Your task to perform on an android device: turn off translation in the chrome app Image 0: 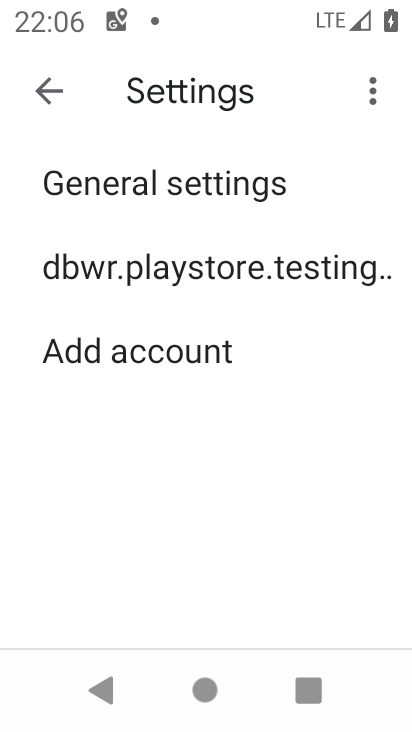
Step 0: press home button
Your task to perform on an android device: turn off translation in the chrome app Image 1: 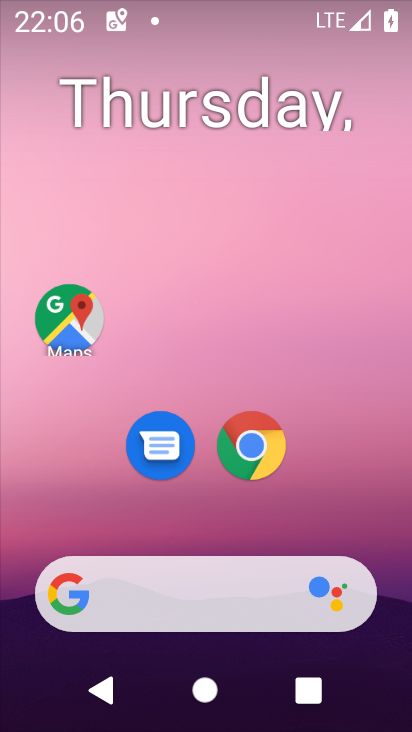
Step 1: drag from (233, 531) to (204, 184)
Your task to perform on an android device: turn off translation in the chrome app Image 2: 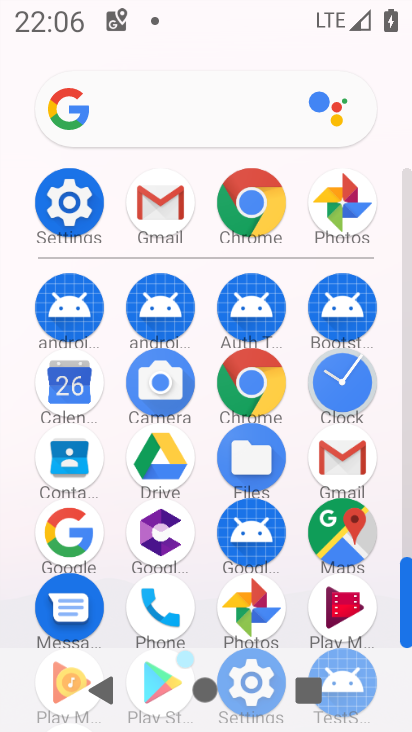
Step 2: click (256, 389)
Your task to perform on an android device: turn off translation in the chrome app Image 3: 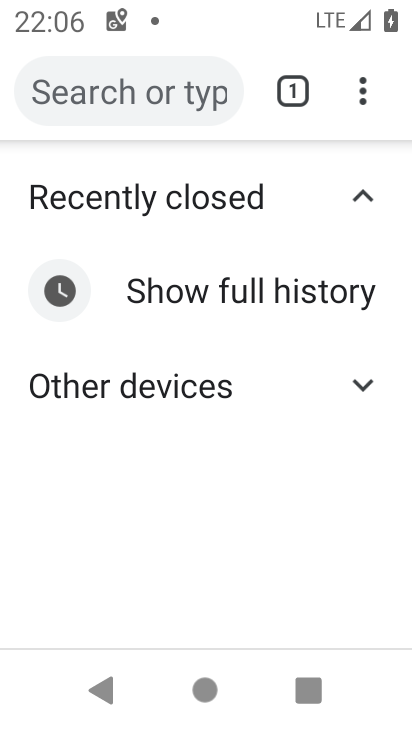
Step 3: click (360, 106)
Your task to perform on an android device: turn off translation in the chrome app Image 4: 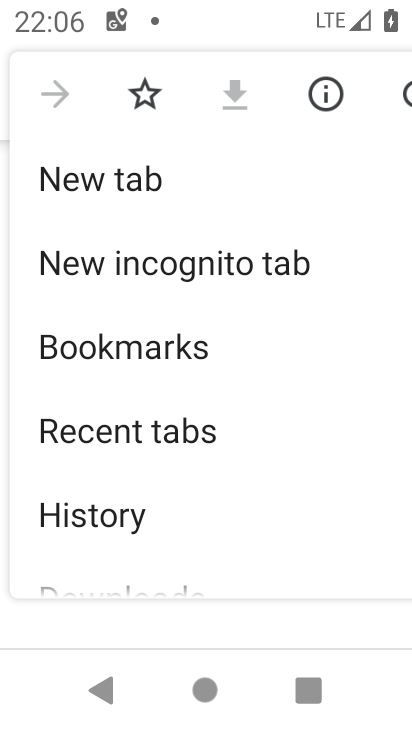
Step 4: drag from (204, 482) to (194, 175)
Your task to perform on an android device: turn off translation in the chrome app Image 5: 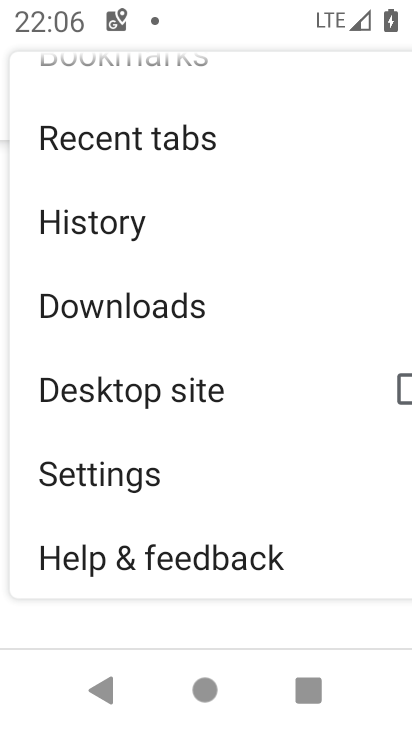
Step 5: click (173, 490)
Your task to perform on an android device: turn off translation in the chrome app Image 6: 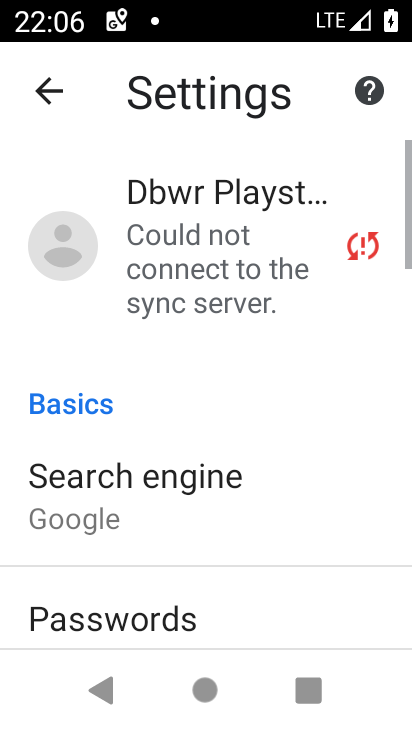
Step 6: drag from (155, 521) to (173, 265)
Your task to perform on an android device: turn off translation in the chrome app Image 7: 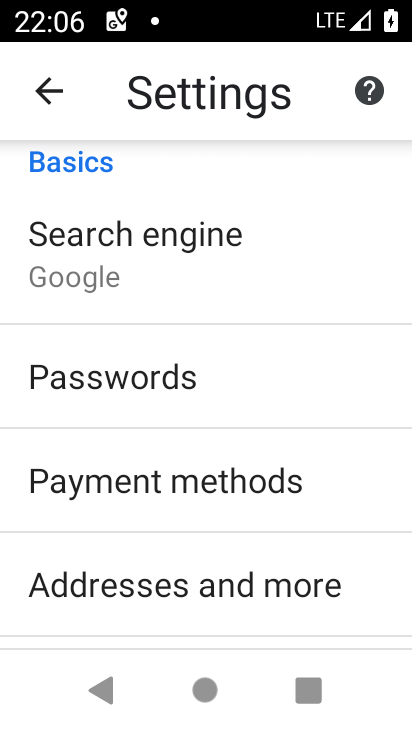
Step 7: drag from (184, 528) to (202, 253)
Your task to perform on an android device: turn off translation in the chrome app Image 8: 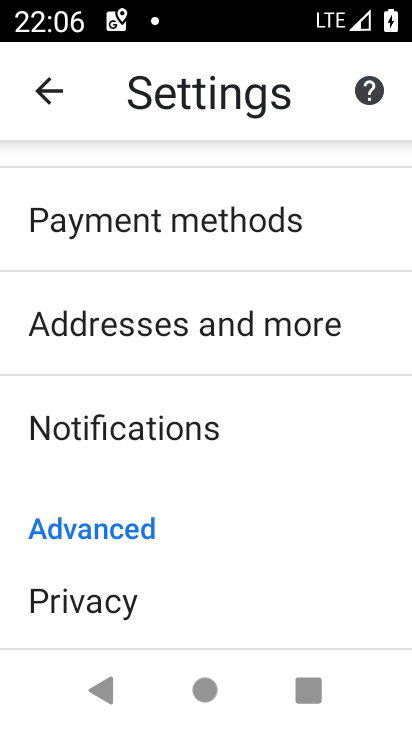
Step 8: drag from (186, 571) to (215, 275)
Your task to perform on an android device: turn off translation in the chrome app Image 9: 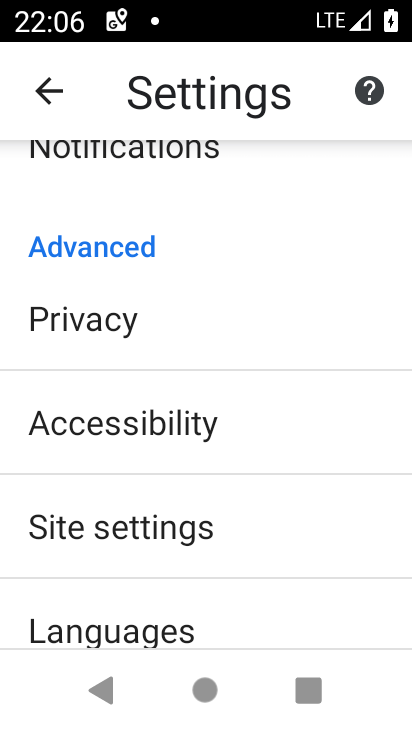
Step 9: drag from (182, 600) to (201, 387)
Your task to perform on an android device: turn off translation in the chrome app Image 10: 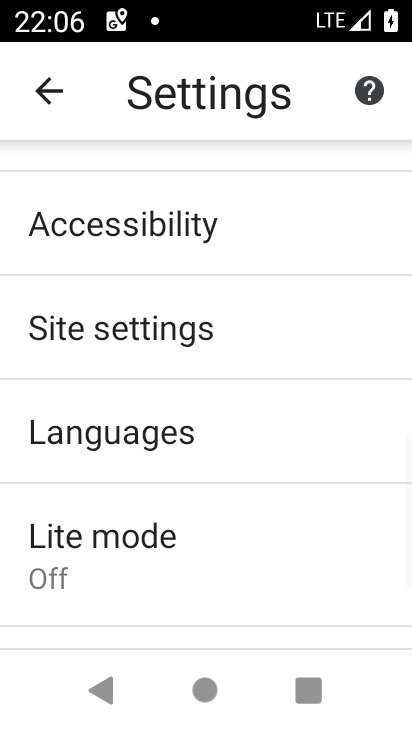
Step 10: click (191, 444)
Your task to perform on an android device: turn off translation in the chrome app Image 11: 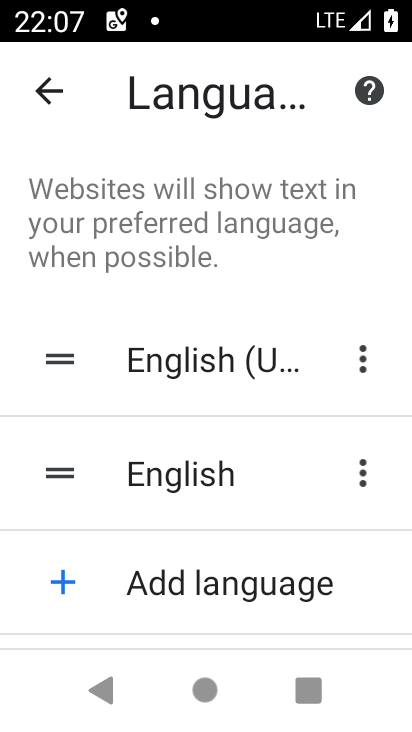
Step 11: drag from (191, 564) to (191, 196)
Your task to perform on an android device: turn off translation in the chrome app Image 12: 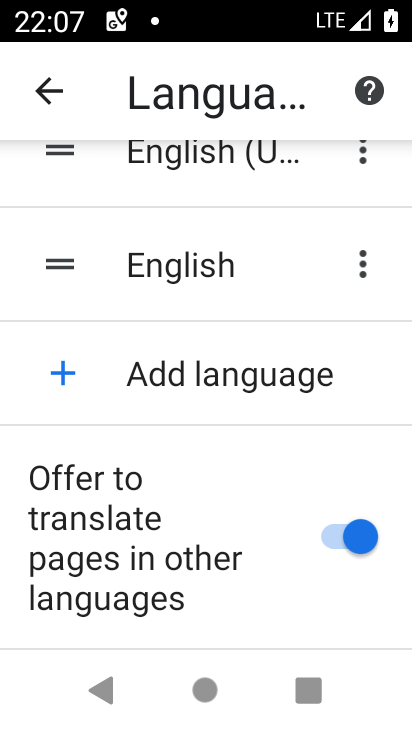
Step 12: click (331, 550)
Your task to perform on an android device: turn off translation in the chrome app Image 13: 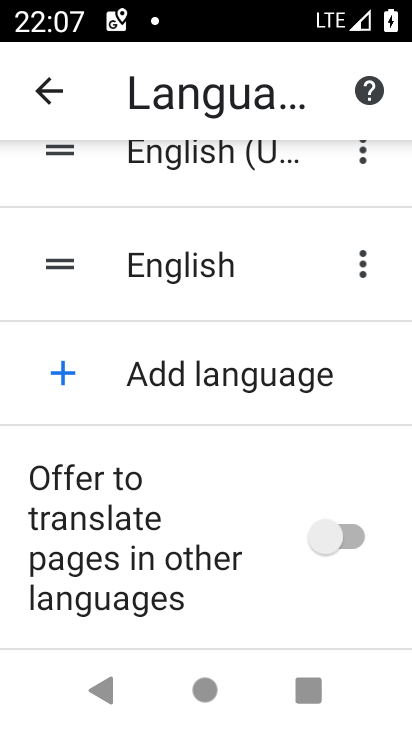
Step 13: task complete